Your task to perform on an android device: open chrome and create a bookmark for the current page Image 0: 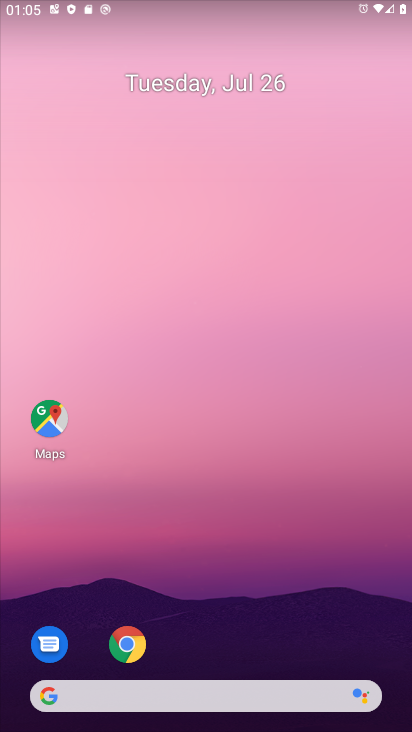
Step 0: drag from (292, 592) to (283, 476)
Your task to perform on an android device: open chrome and create a bookmark for the current page Image 1: 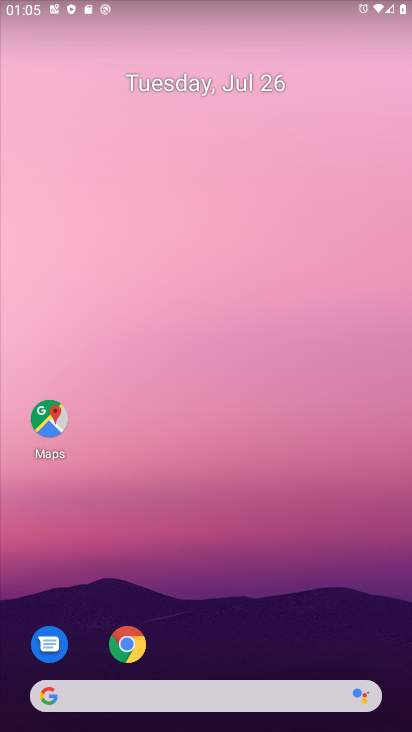
Step 1: drag from (270, 648) to (155, 119)
Your task to perform on an android device: open chrome and create a bookmark for the current page Image 2: 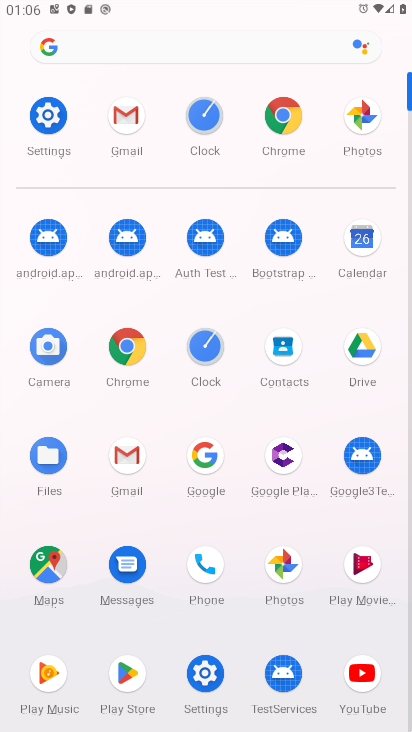
Step 2: click (277, 106)
Your task to perform on an android device: open chrome and create a bookmark for the current page Image 3: 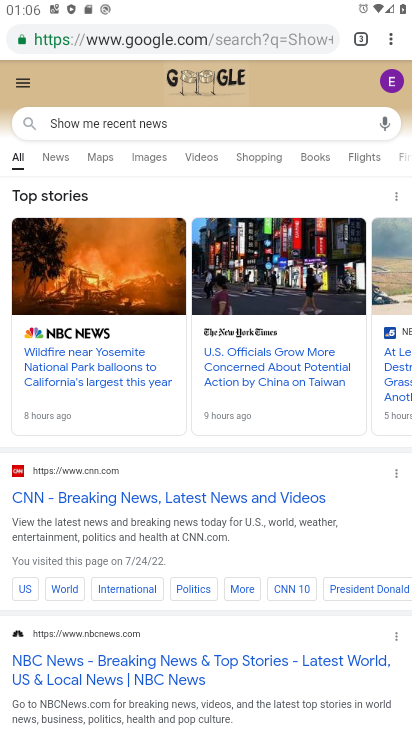
Step 3: click (399, 41)
Your task to perform on an android device: open chrome and create a bookmark for the current page Image 4: 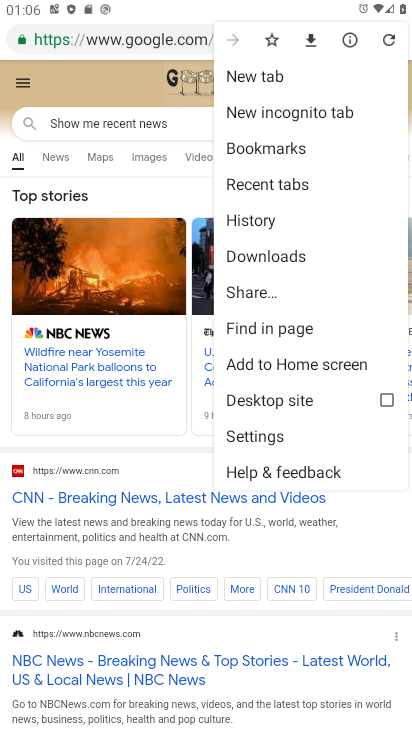
Step 4: click (272, 37)
Your task to perform on an android device: open chrome and create a bookmark for the current page Image 5: 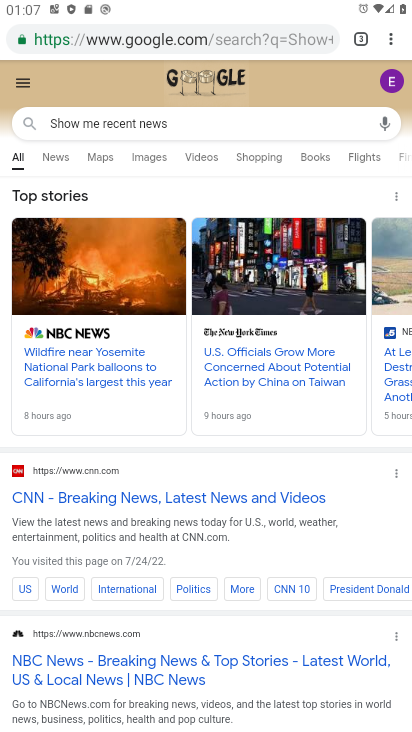
Step 5: task complete